Your task to perform on an android device: Search for pizza restaurants on Maps Image 0: 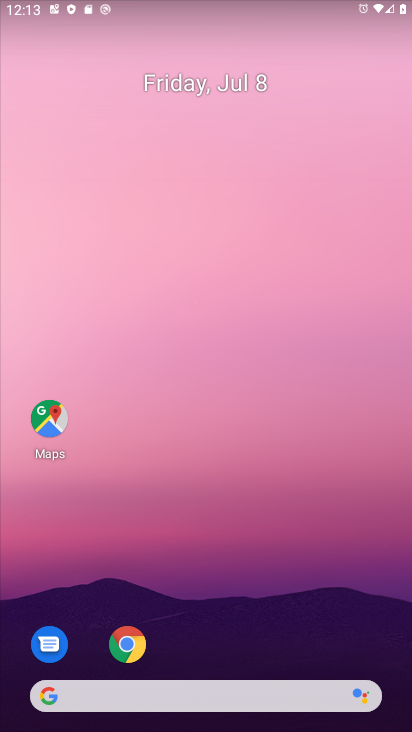
Step 0: click (58, 412)
Your task to perform on an android device: Search for pizza restaurants on Maps Image 1: 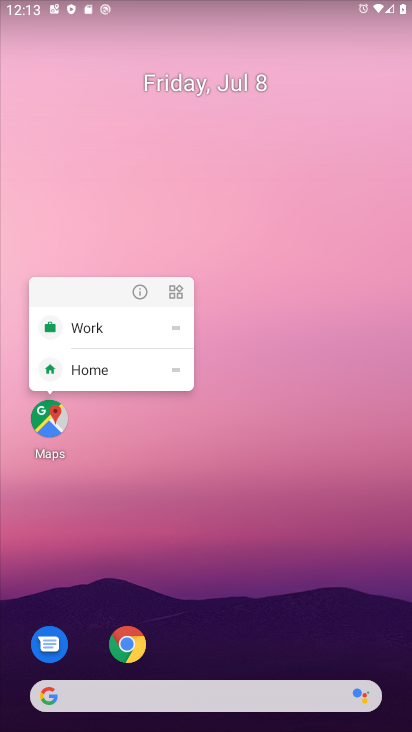
Step 1: click (57, 414)
Your task to perform on an android device: Search for pizza restaurants on Maps Image 2: 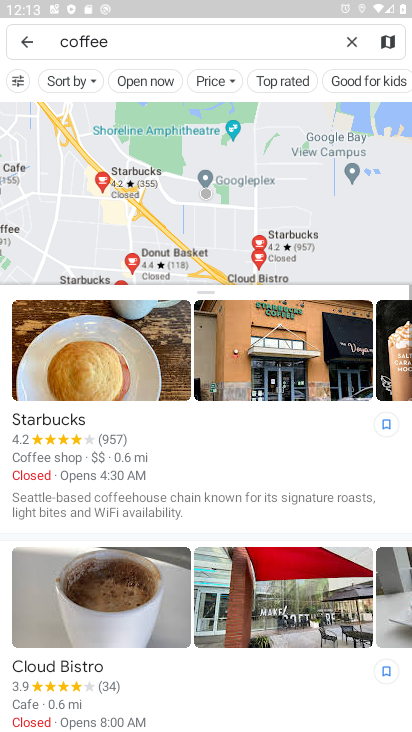
Step 2: click (174, 38)
Your task to perform on an android device: Search for pizza restaurants on Maps Image 3: 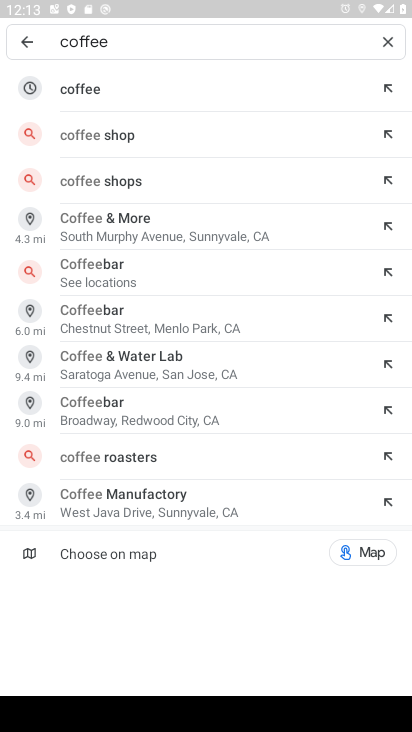
Step 3: click (387, 39)
Your task to perform on an android device: Search for pizza restaurants on Maps Image 4: 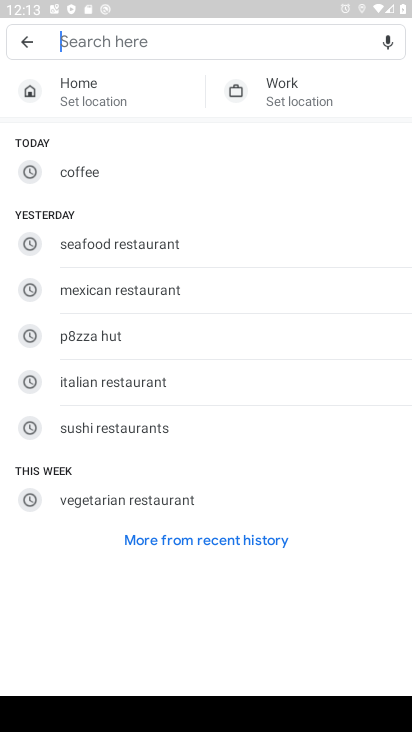
Step 4: type "Pizza restaurants"
Your task to perform on an android device: Search for pizza restaurants on Maps Image 5: 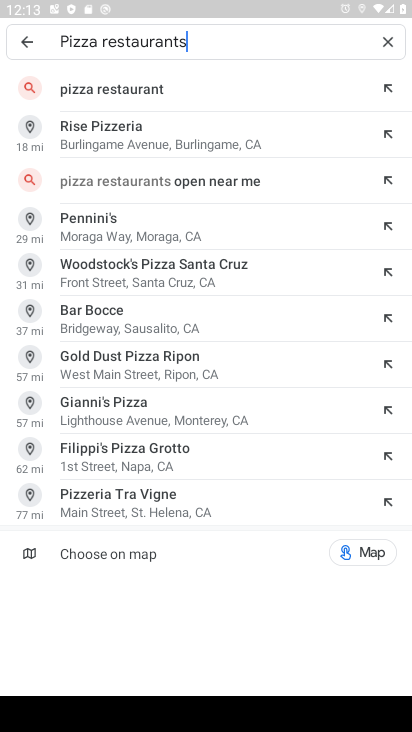
Step 5: click (116, 90)
Your task to perform on an android device: Search for pizza restaurants on Maps Image 6: 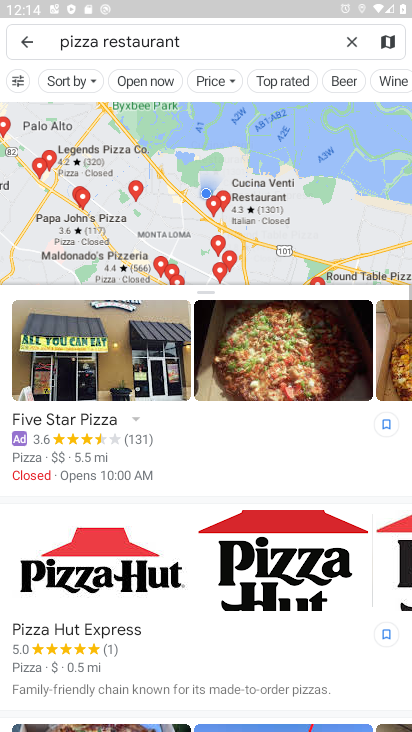
Step 6: task complete